Your task to perform on an android device: Open settings on Google Maps Image 0: 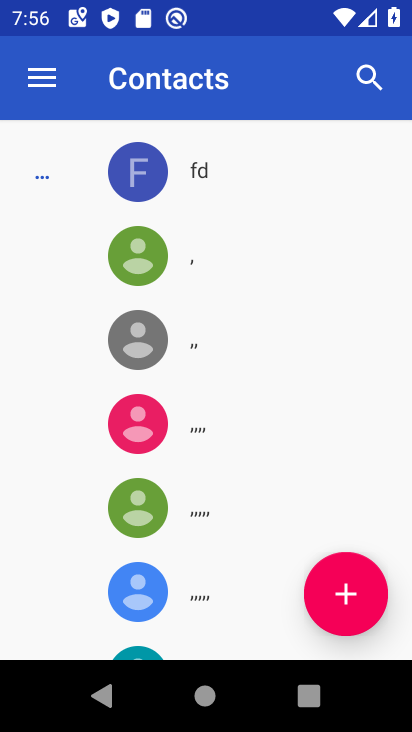
Step 0: press home button
Your task to perform on an android device: Open settings on Google Maps Image 1: 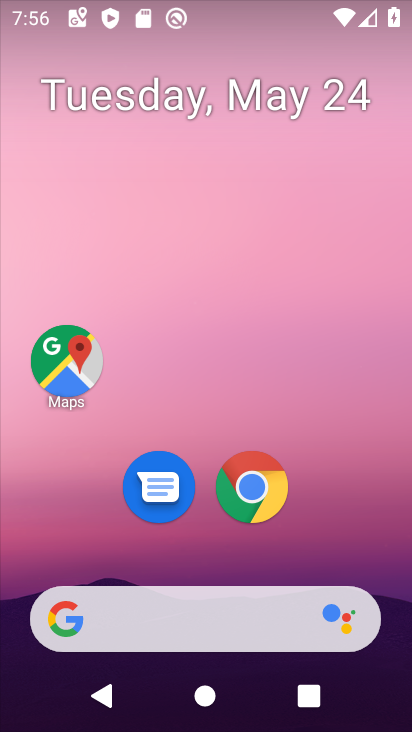
Step 1: click (95, 362)
Your task to perform on an android device: Open settings on Google Maps Image 2: 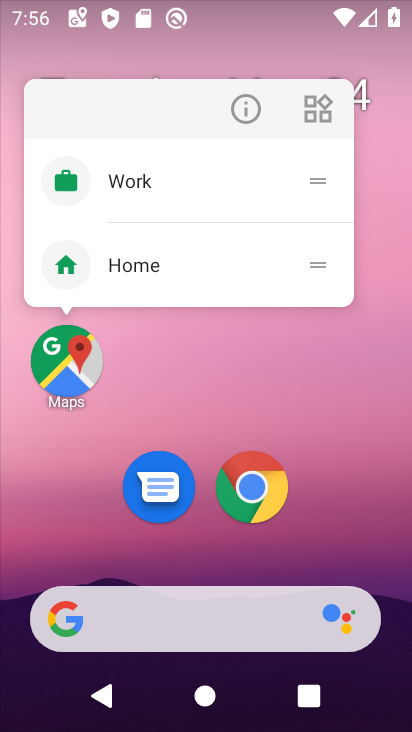
Step 2: click (83, 359)
Your task to perform on an android device: Open settings on Google Maps Image 3: 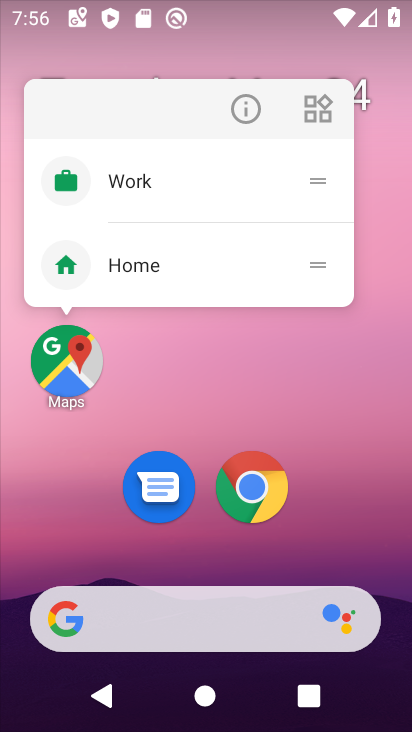
Step 3: click (67, 360)
Your task to perform on an android device: Open settings on Google Maps Image 4: 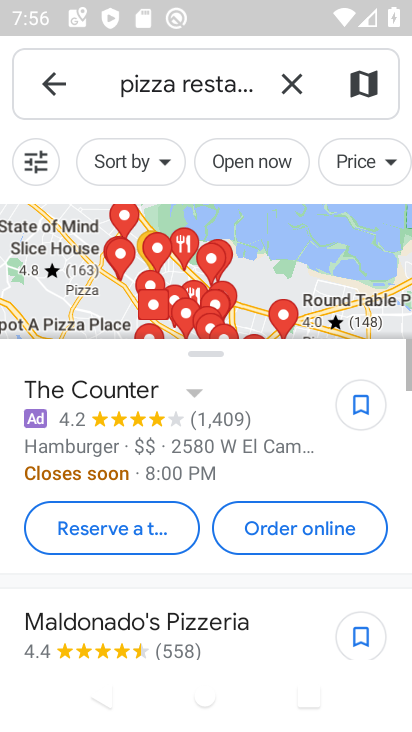
Step 4: click (281, 79)
Your task to perform on an android device: Open settings on Google Maps Image 5: 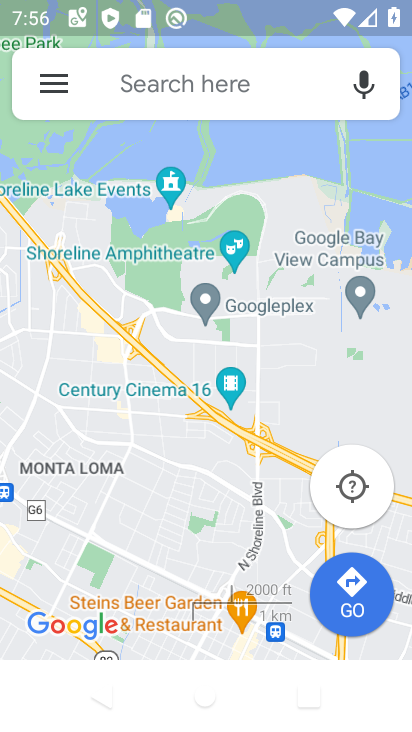
Step 5: click (53, 87)
Your task to perform on an android device: Open settings on Google Maps Image 6: 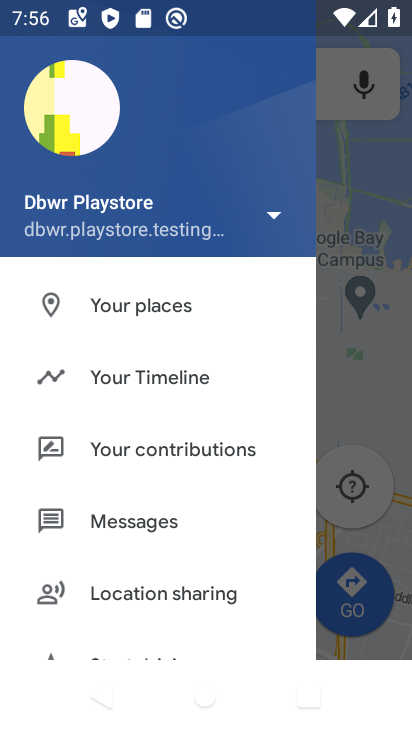
Step 6: drag from (8, 643) to (153, 152)
Your task to perform on an android device: Open settings on Google Maps Image 7: 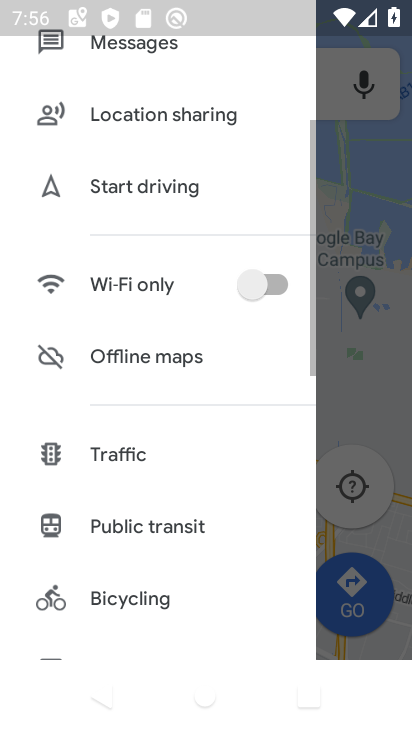
Step 7: drag from (31, 648) to (172, 195)
Your task to perform on an android device: Open settings on Google Maps Image 8: 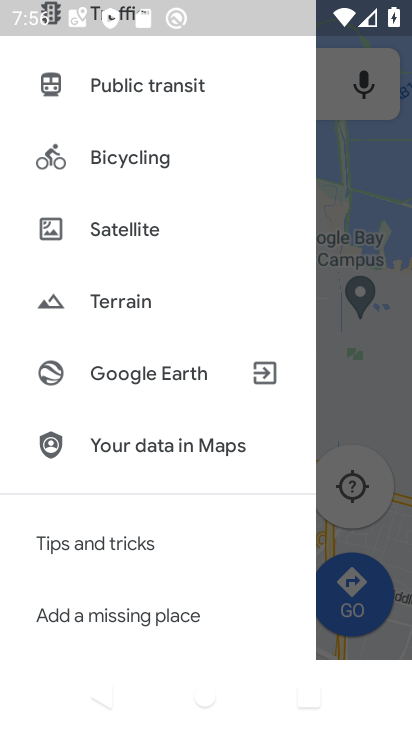
Step 8: drag from (29, 596) to (189, 205)
Your task to perform on an android device: Open settings on Google Maps Image 9: 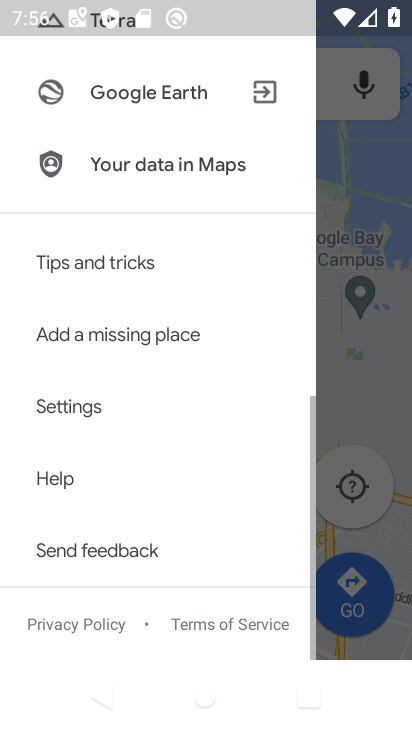
Step 9: click (78, 407)
Your task to perform on an android device: Open settings on Google Maps Image 10: 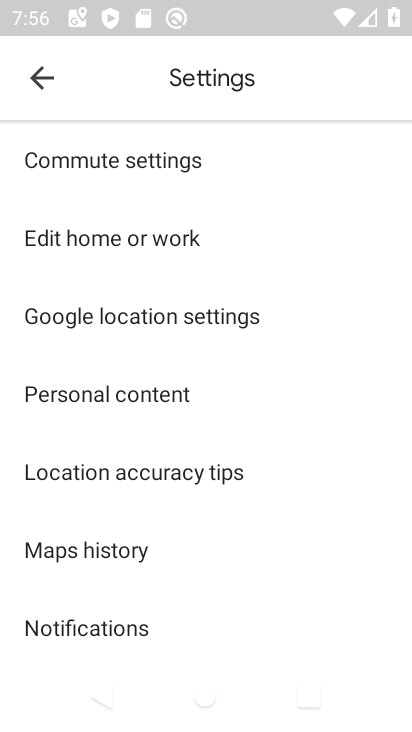
Step 10: task complete